Your task to perform on an android device: Show me popular videos on Youtube Image 0: 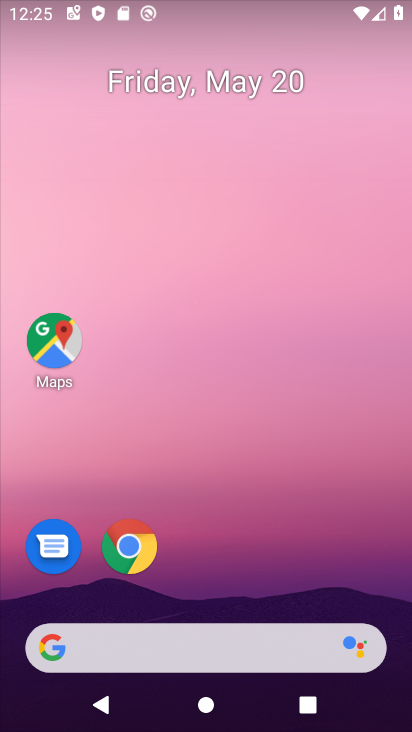
Step 0: drag from (268, 528) to (280, 129)
Your task to perform on an android device: Show me popular videos on Youtube Image 1: 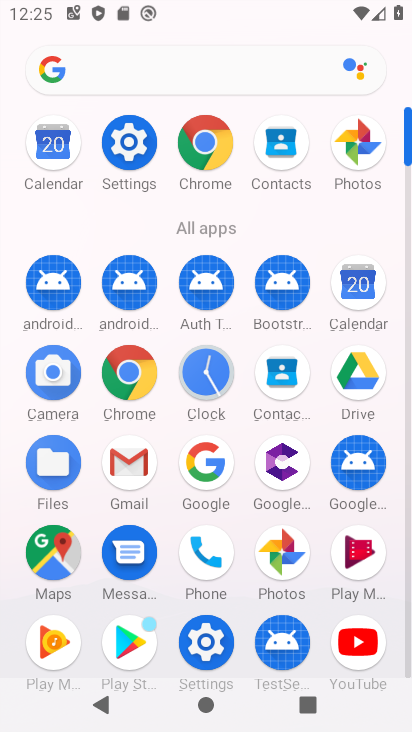
Step 1: click (350, 633)
Your task to perform on an android device: Show me popular videos on Youtube Image 2: 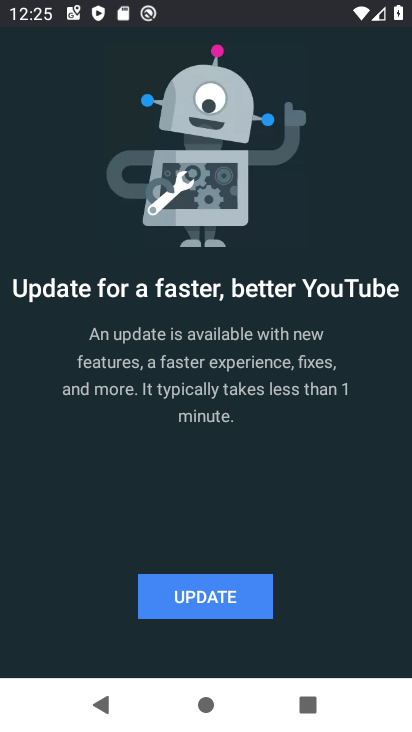
Step 2: click (233, 593)
Your task to perform on an android device: Show me popular videos on Youtube Image 3: 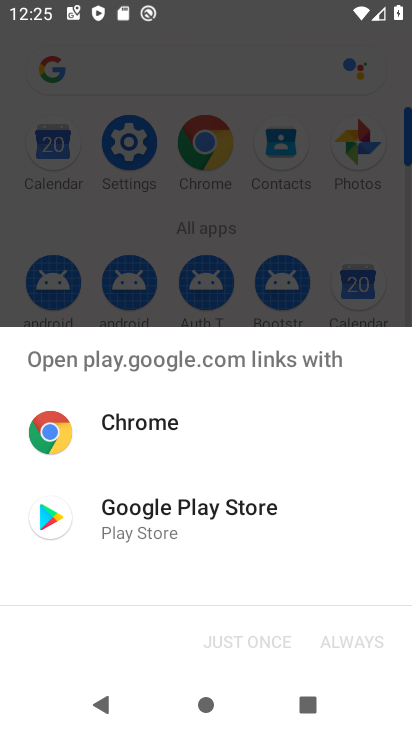
Step 3: click (167, 519)
Your task to perform on an android device: Show me popular videos on Youtube Image 4: 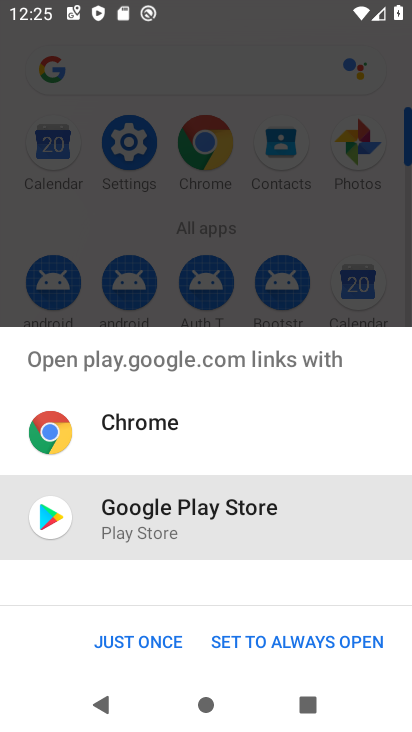
Step 4: click (158, 638)
Your task to perform on an android device: Show me popular videos on Youtube Image 5: 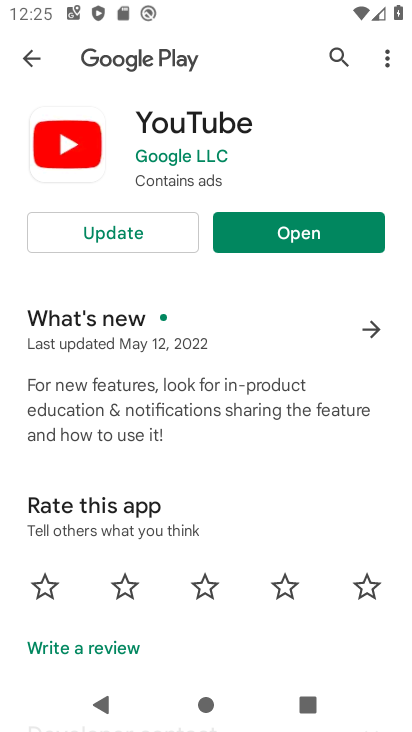
Step 5: click (167, 231)
Your task to perform on an android device: Show me popular videos on Youtube Image 6: 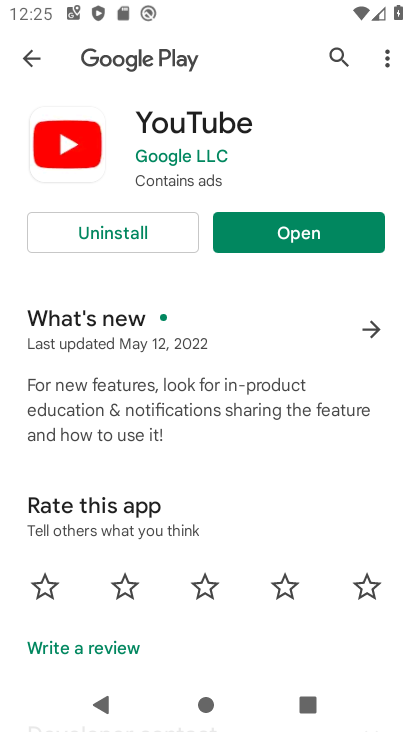
Step 6: click (291, 227)
Your task to perform on an android device: Show me popular videos on Youtube Image 7: 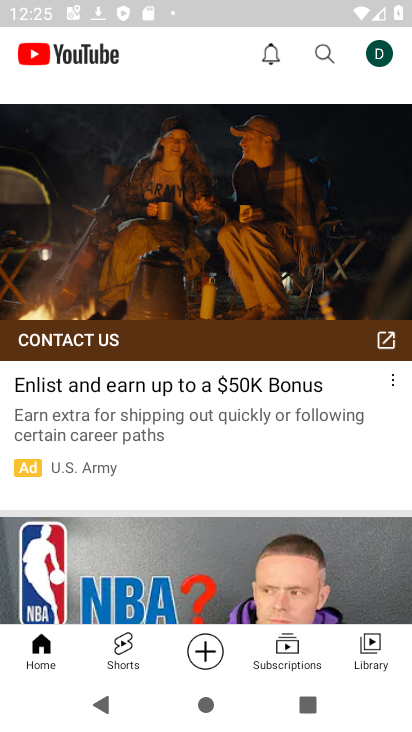
Step 7: click (319, 48)
Your task to perform on an android device: Show me popular videos on Youtube Image 8: 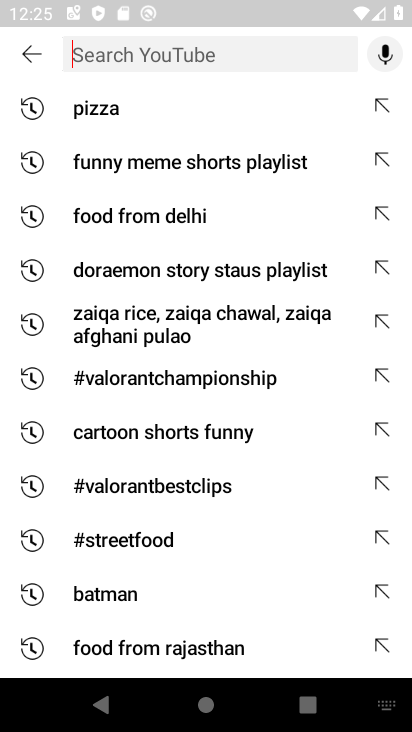
Step 8: type "popular videos"
Your task to perform on an android device: Show me popular videos on Youtube Image 9: 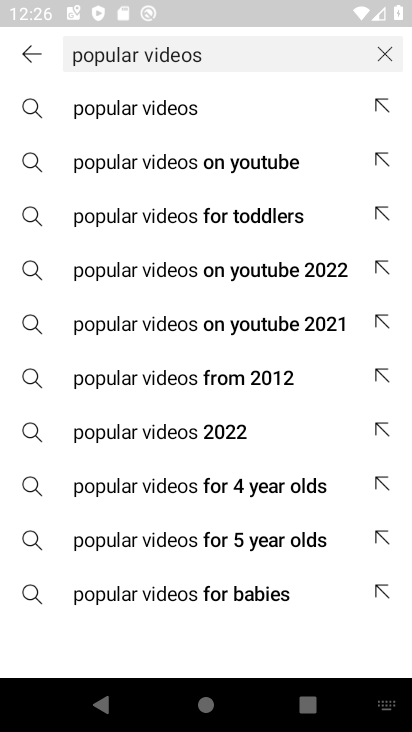
Step 9: click (279, 163)
Your task to perform on an android device: Show me popular videos on Youtube Image 10: 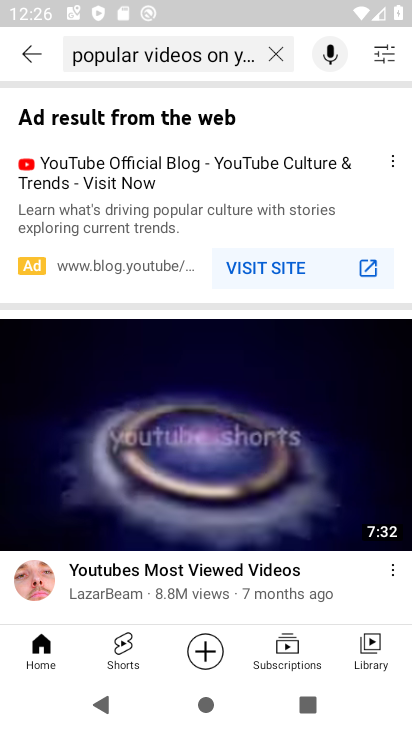
Step 10: task complete